Your task to perform on an android device: turn on improve location accuracy Image 0: 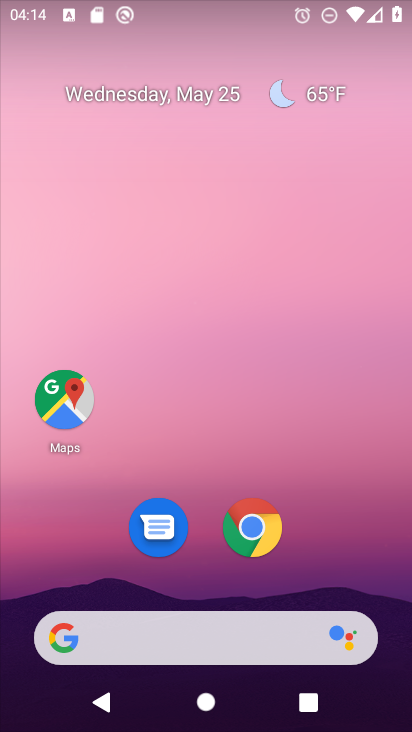
Step 0: drag from (336, 629) to (317, 27)
Your task to perform on an android device: turn on improve location accuracy Image 1: 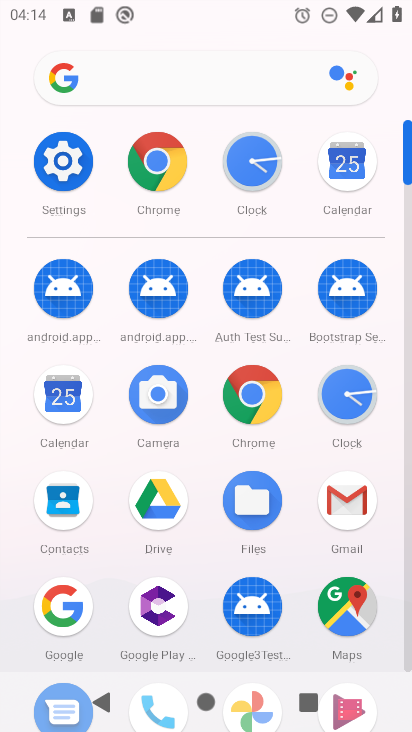
Step 1: click (68, 158)
Your task to perform on an android device: turn on improve location accuracy Image 2: 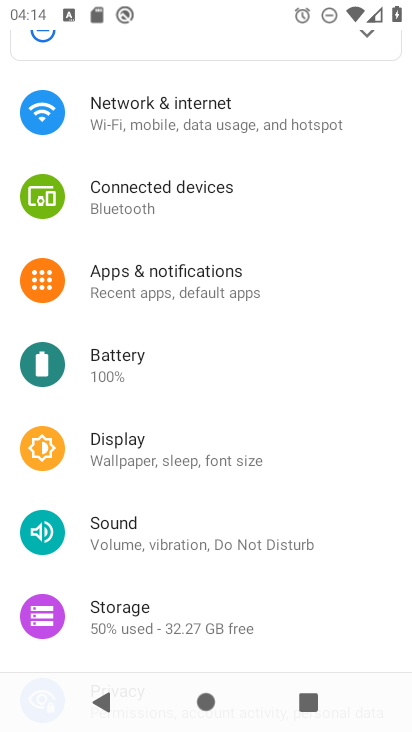
Step 2: drag from (195, 242) to (215, 669)
Your task to perform on an android device: turn on improve location accuracy Image 3: 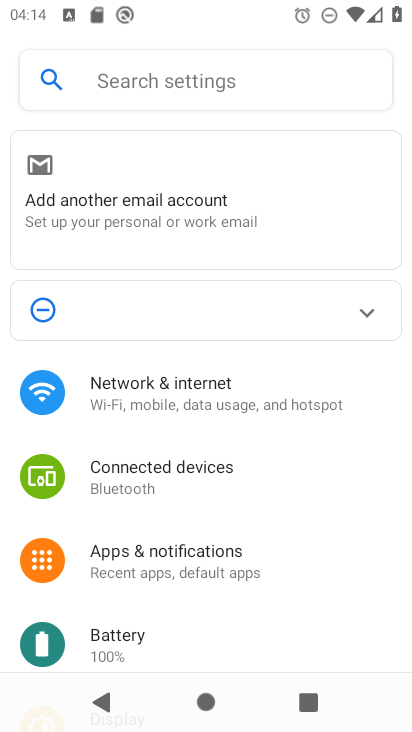
Step 3: drag from (235, 595) to (236, 154)
Your task to perform on an android device: turn on improve location accuracy Image 4: 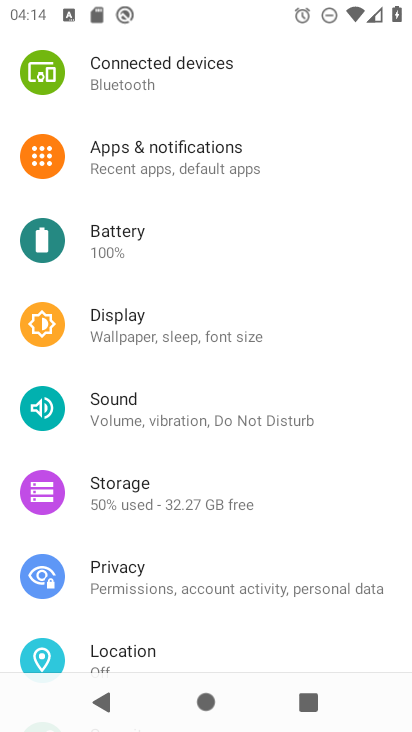
Step 4: drag from (276, 582) to (260, 243)
Your task to perform on an android device: turn on improve location accuracy Image 5: 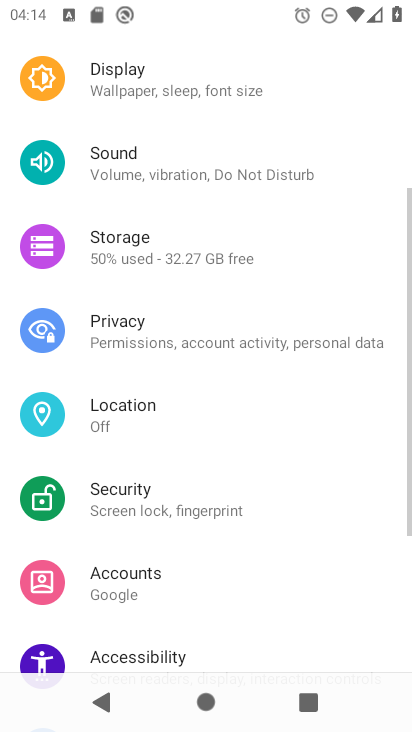
Step 5: click (196, 437)
Your task to perform on an android device: turn on improve location accuracy Image 6: 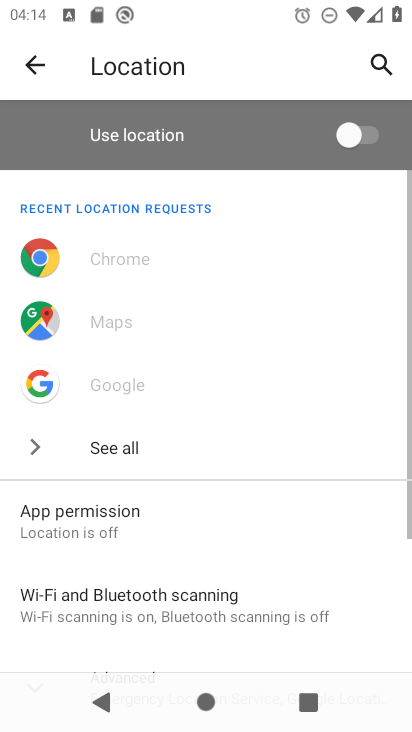
Step 6: drag from (293, 591) to (246, 150)
Your task to perform on an android device: turn on improve location accuracy Image 7: 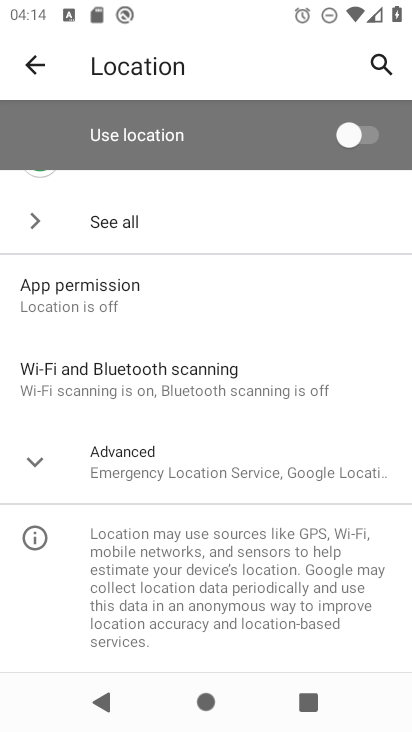
Step 7: click (220, 475)
Your task to perform on an android device: turn on improve location accuracy Image 8: 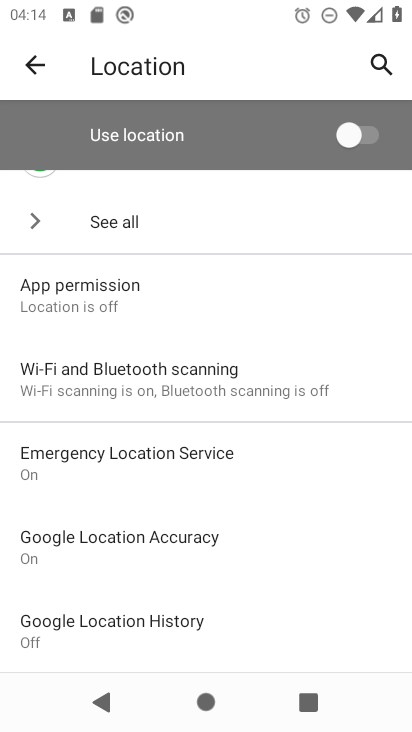
Step 8: click (206, 560)
Your task to perform on an android device: turn on improve location accuracy Image 9: 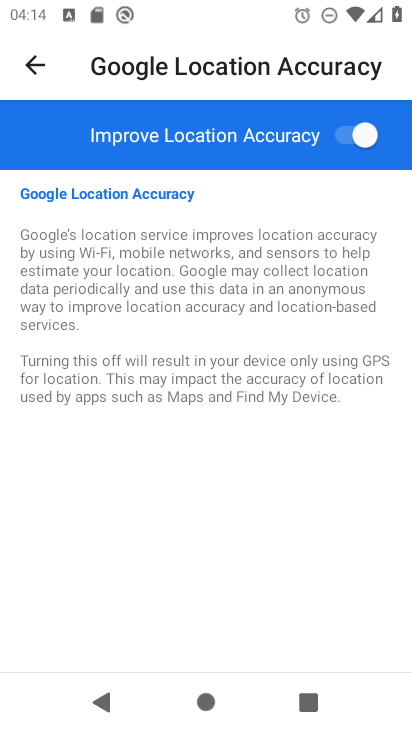
Step 9: task complete